Your task to perform on an android device: Clear the shopping cart on newegg.com. Add "alienware aurora" to the cart on newegg.com Image 0: 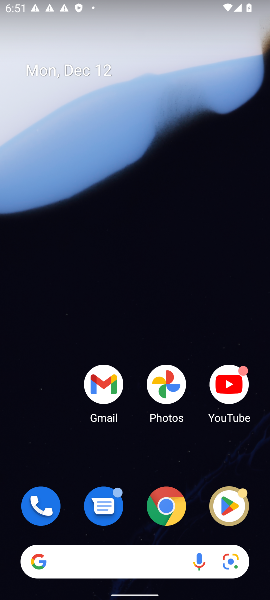
Step 0: click (146, 572)
Your task to perform on an android device: Clear the shopping cart on newegg.com. Add "alienware aurora" to the cart on newegg.com Image 1: 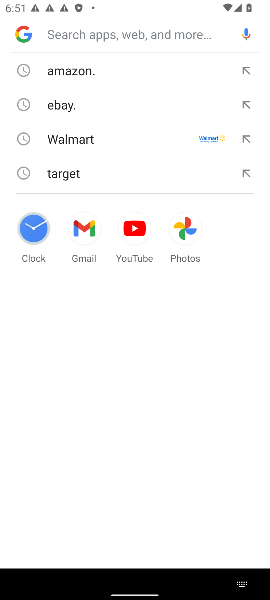
Step 1: type "newegg"
Your task to perform on an android device: Clear the shopping cart on newegg.com. Add "alienware aurora" to the cart on newegg.com Image 2: 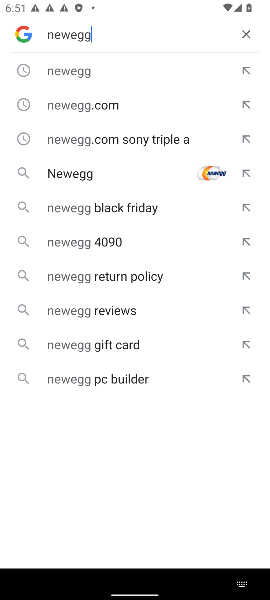
Step 2: click (82, 172)
Your task to perform on an android device: Clear the shopping cart on newegg.com. Add "alienware aurora" to the cart on newegg.com Image 3: 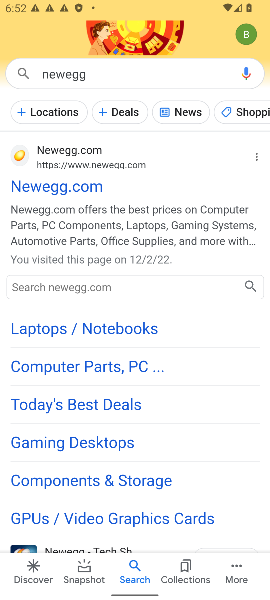
Step 3: click (17, 188)
Your task to perform on an android device: Clear the shopping cart on newegg.com. Add "alienware aurora" to the cart on newegg.com Image 4: 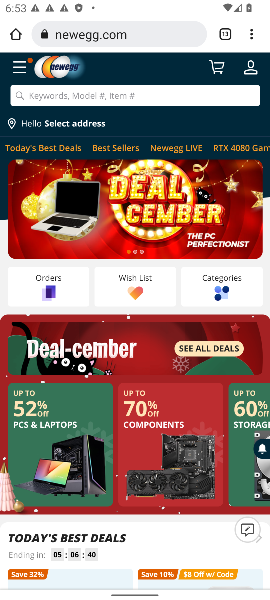
Step 4: click (97, 96)
Your task to perform on an android device: Clear the shopping cart on newegg.com. Add "alienware aurora" to the cart on newegg.com Image 5: 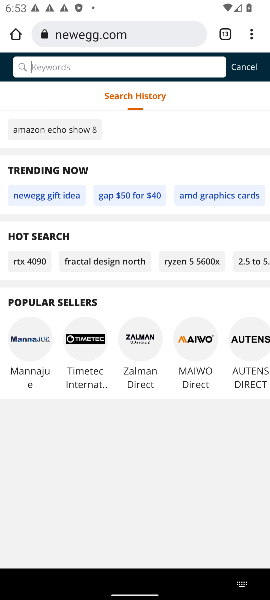
Step 5: type "alienware aurora"
Your task to perform on an android device: Clear the shopping cart on newegg.com. Add "alienware aurora" to the cart on newegg.com Image 6: 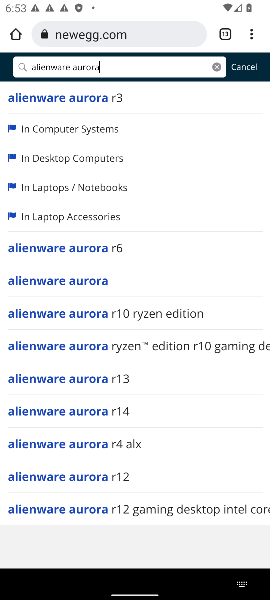
Step 6: click (97, 275)
Your task to perform on an android device: Clear the shopping cart on newegg.com. Add "alienware aurora" to the cart on newegg.com Image 7: 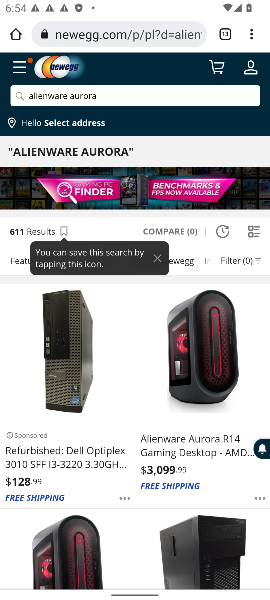
Step 7: click (68, 426)
Your task to perform on an android device: Clear the shopping cart on newegg.com. Add "alienware aurora" to the cart on newegg.com Image 8: 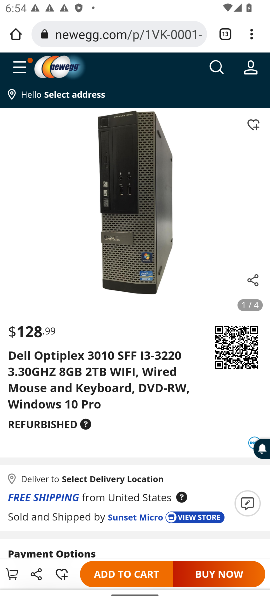
Step 8: click (152, 571)
Your task to perform on an android device: Clear the shopping cart on newegg.com. Add "alienware aurora" to the cart on newegg.com Image 9: 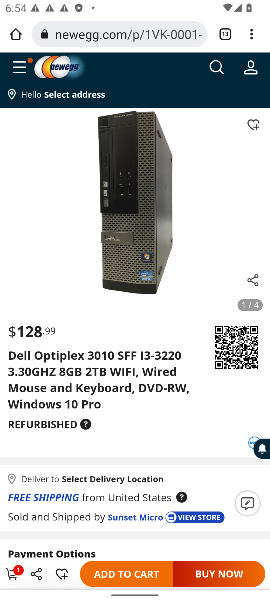
Step 9: task complete